Your task to perform on an android device: Open the Play Movies app and select the watchlist tab. Image 0: 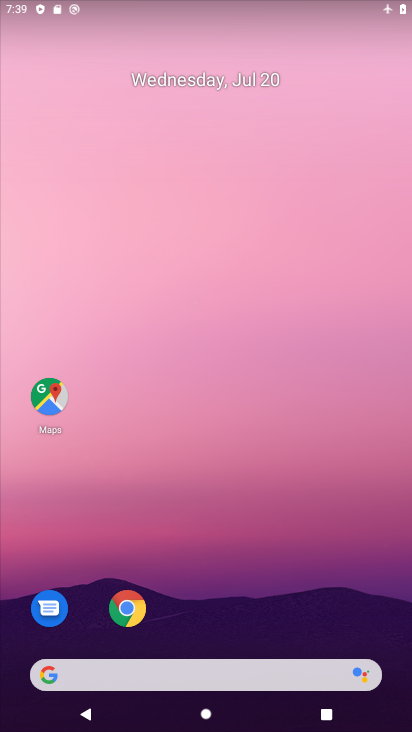
Step 0: drag from (301, 550) to (168, 22)
Your task to perform on an android device: Open the Play Movies app and select the watchlist tab. Image 1: 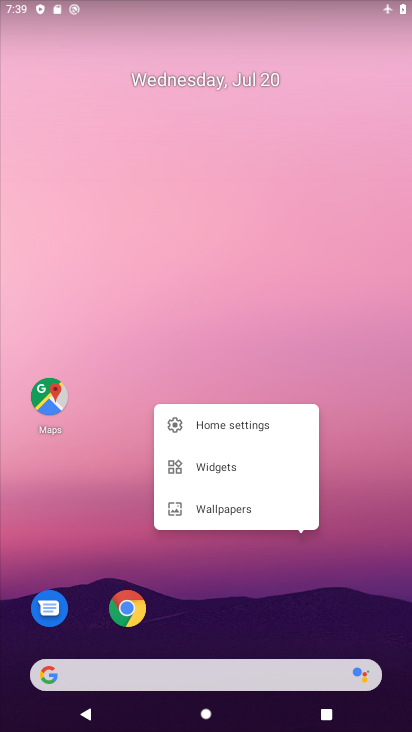
Step 1: click (348, 587)
Your task to perform on an android device: Open the Play Movies app and select the watchlist tab. Image 2: 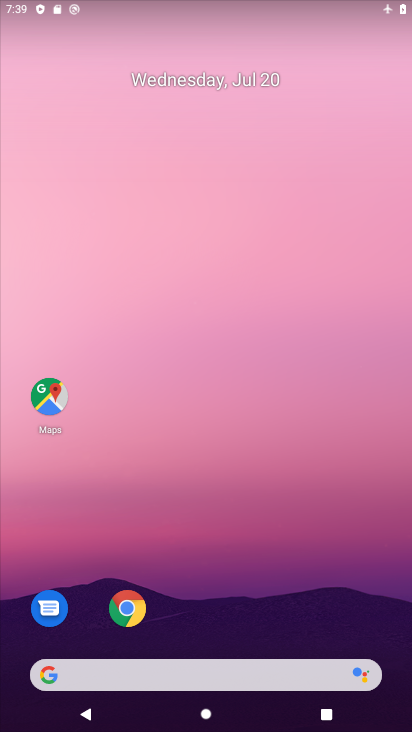
Step 2: drag from (278, 461) to (198, 4)
Your task to perform on an android device: Open the Play Movies app and select the watchlist tab. Image 3: 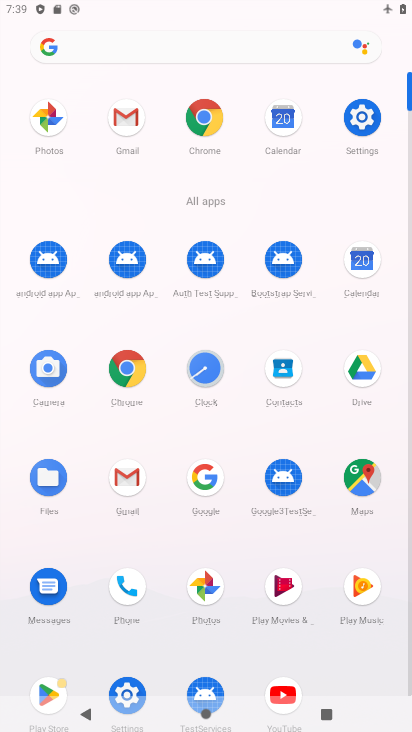
Step 3: click (296, 587)
Your task to perform on an android device: Open the Play Movies app and select the watchlist tab. Image 4: 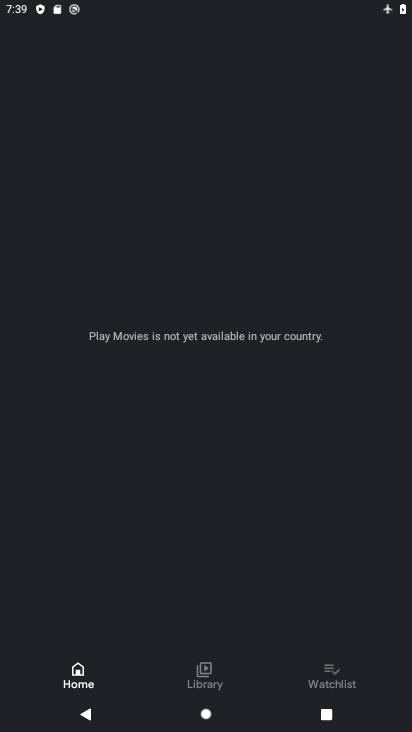
Step 4: click (344, 680)
Your task to perform on an android device: Open the Play Movies app and select the watchlist tab. Image 5: 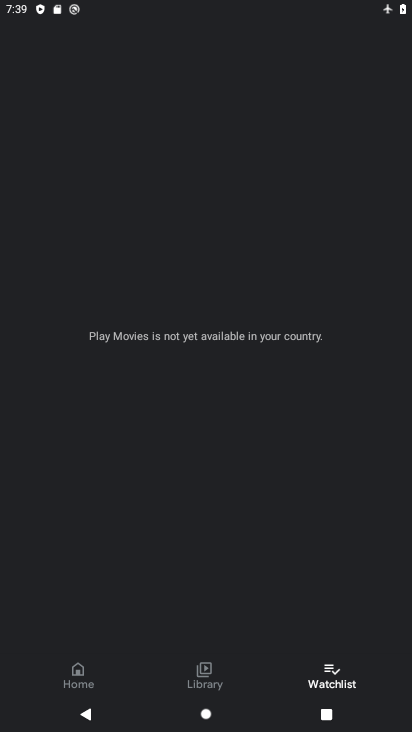
Step 5: task complete